Your task to perform on an android device: turn vacation reply on in the gmail app Image 0: 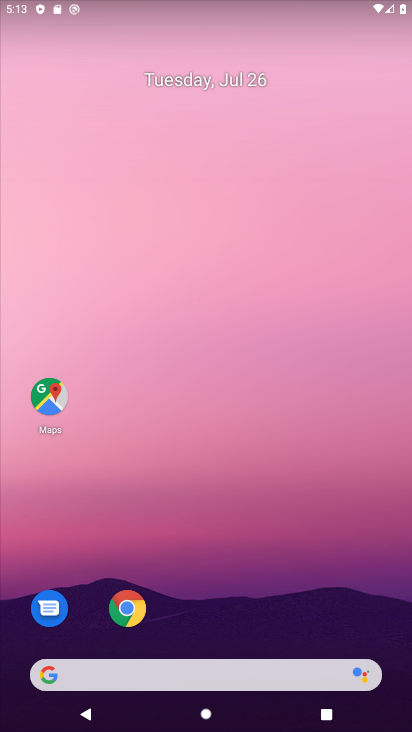
Step 0: press home button
Your task to perform on an android device: turn vacation reply on in the gmail app Image 1: 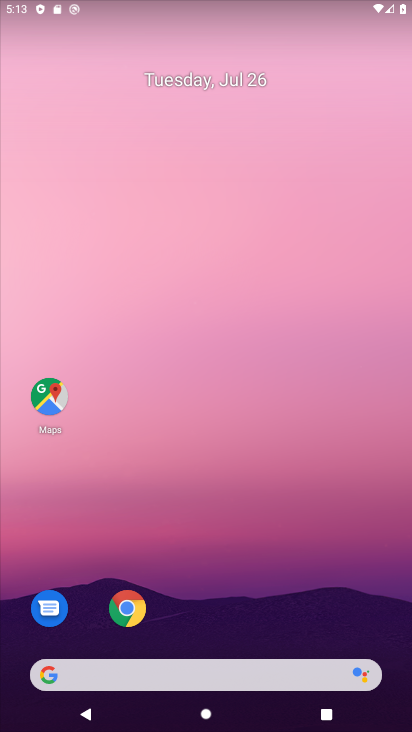
Step 1: drag from (224, 644) to (207, 6)
Your task to perform on an android device: turn vacation reply on in the gmail app Image 2: 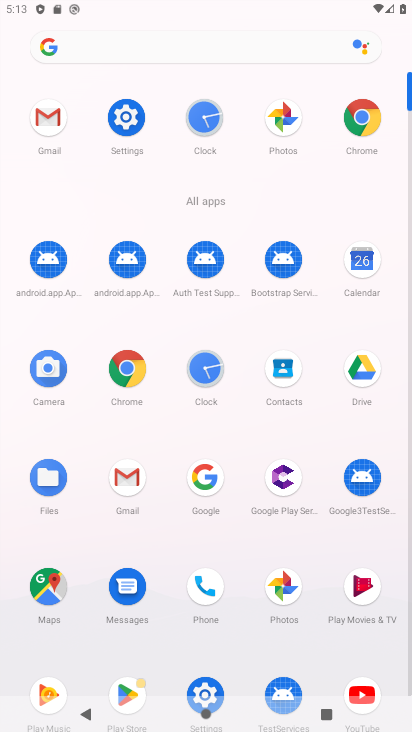
Step 2: click (45, 118)
Your task to perform on an android device: turn vacation reply on in the gmail app Image 3: 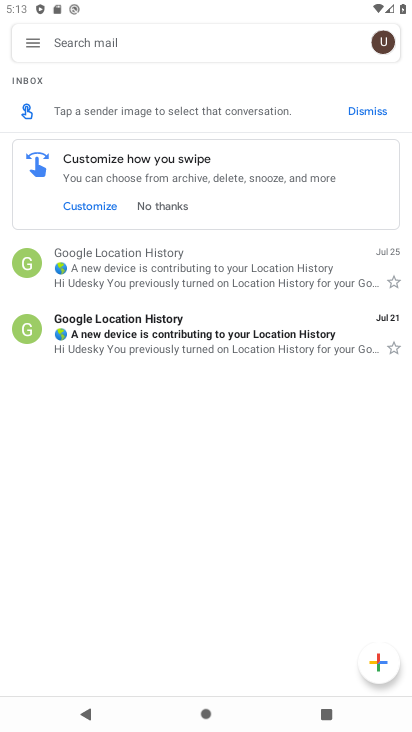
Step 3: click (35, 41)
Your task to perform on an android device: turn vacation reply on in the gmail app Image 4: 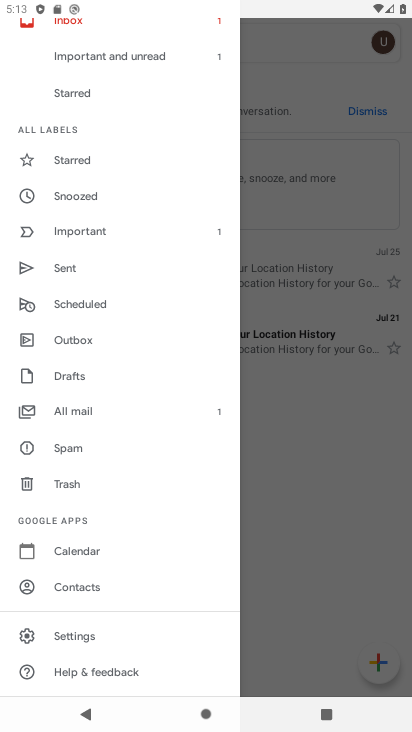
Step 4: click (71, 636)
Your task to perform on an android device: turn vacation reply on in the gmail app Image 5: 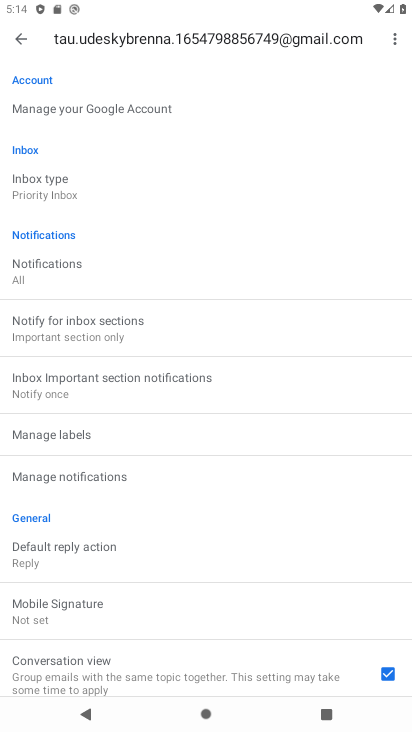
Step 5: drag from (240, 549) to (254, 110)
Your task to perform on an android device: turn vacation reply on in the gmail app Image 6: 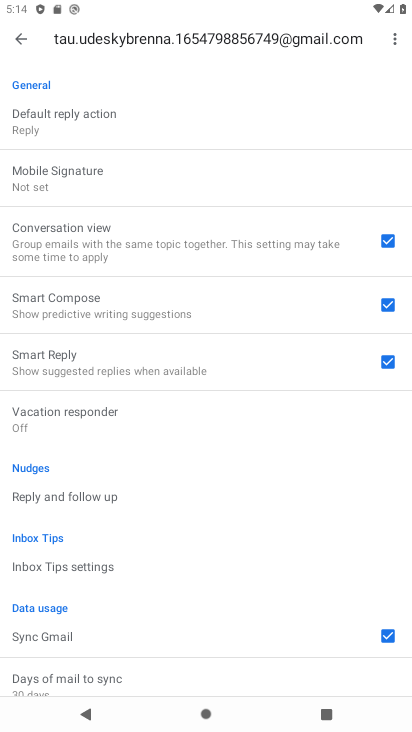
Step 6: click (59, 408)
Your task to perform on an android device: turn vacation reply on in the gmail app Image 7: 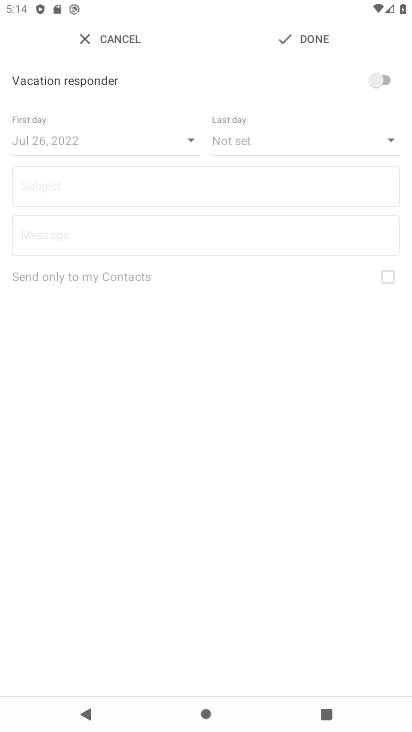
Step 7: click (380, 79)
Your task to perform on an android device: turn vacation reply on in the gmail app Image 8: 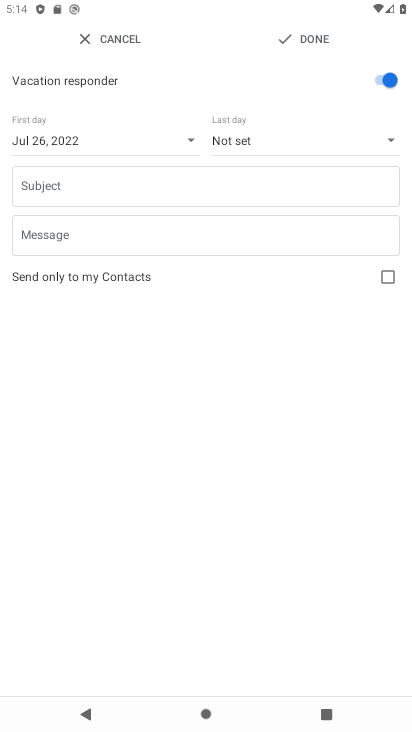
Step 8: task complete